Your task to perform on an android device: turn off picture-in-picture Image 0: 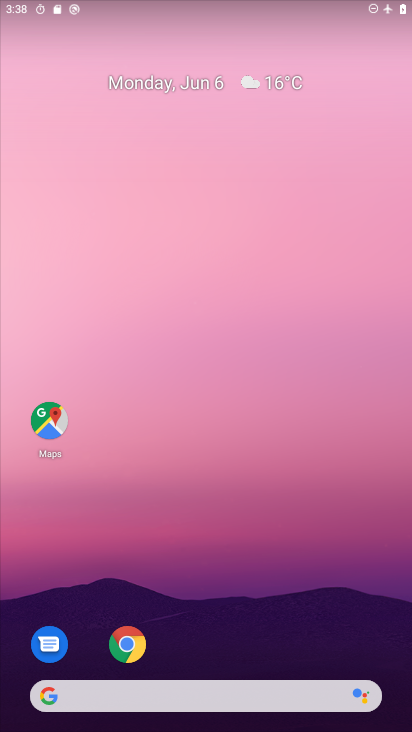
Step 0: click (127, 645)
Your task to perform on an android device: turn off picture-in-picture Image 1: 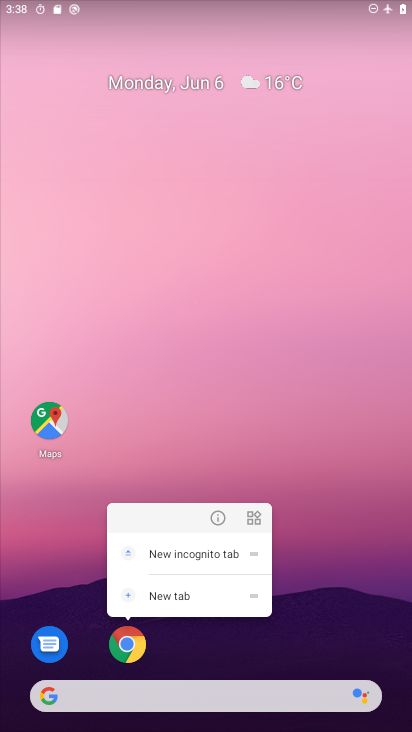
Step 1: click (215, 521)
Your task to perform on an android device: turn off picture-in-picture Image 2: 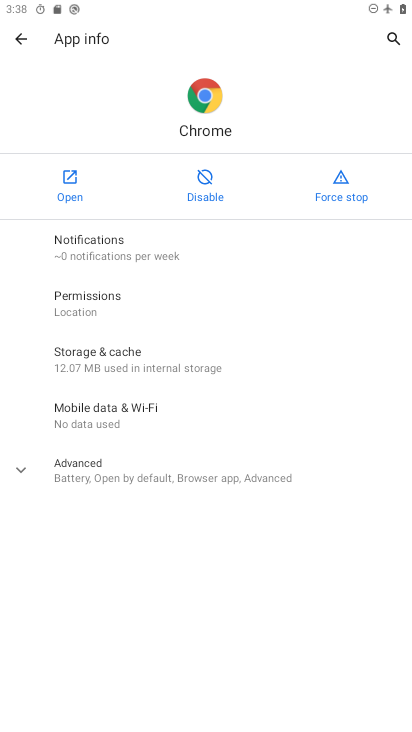
Step 2: click (131, 472)
Your task to perform on an android device: turn off picture-in-picture Image 3: 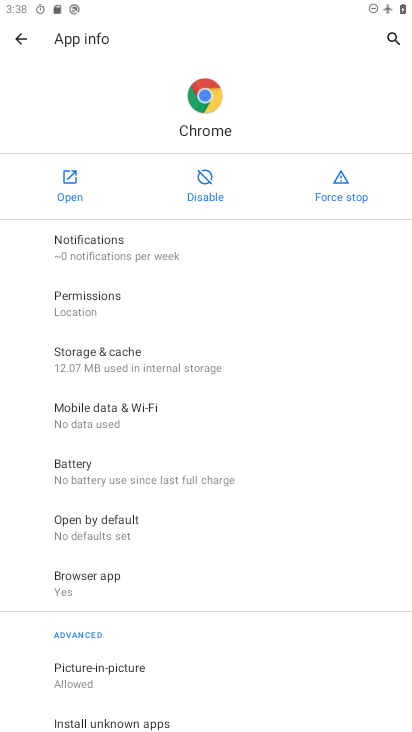
Step 3: drag from (141, 582) to (194, 507)
Your task to perform on an android device: turn off picture-in-picture Image 4: 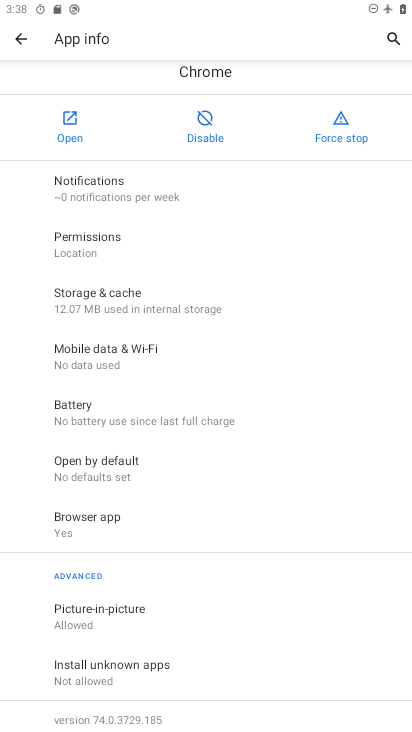
Step 4: click (91, 621)
Your task to perform on an android device: turn off picture-in-picture Image 5: 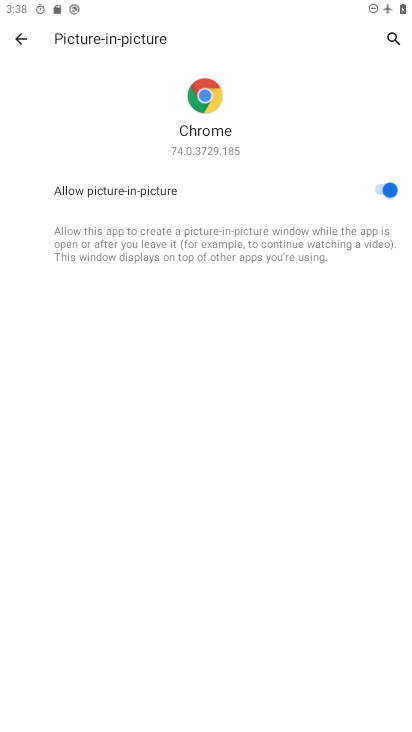
Step 5: click (391, 197)
Your task to perform on an android device: turn off picture-in-picture Image 6: 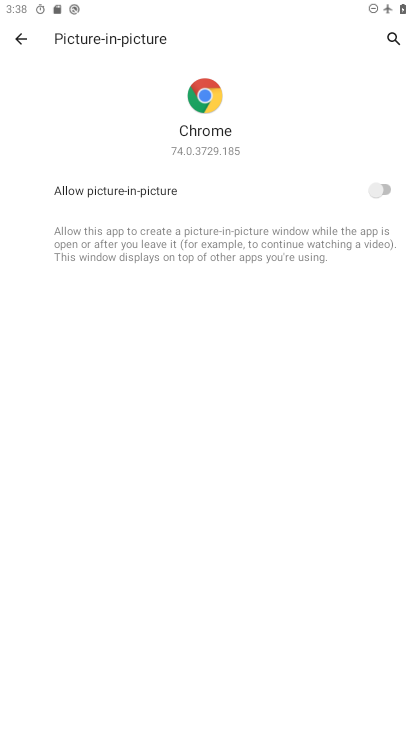
Step 6: task complete